Your task to perform on an android device: Open Chrome and go to settings Image 0: 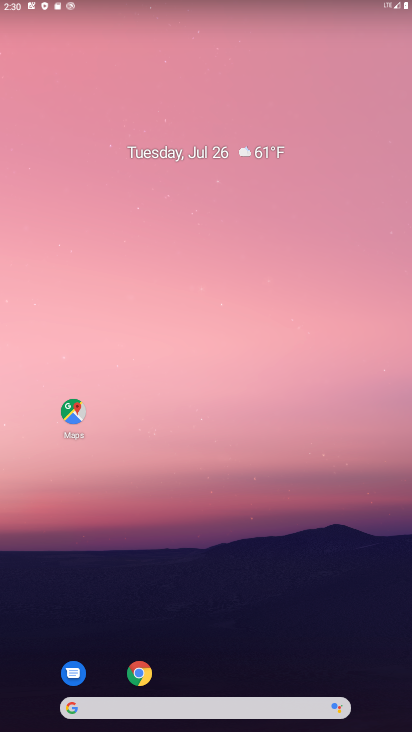
Step 0: drag from (180, 625) to (254, 27)
Your task to perform on an android device: Open Chrome and go to settings Image 1: 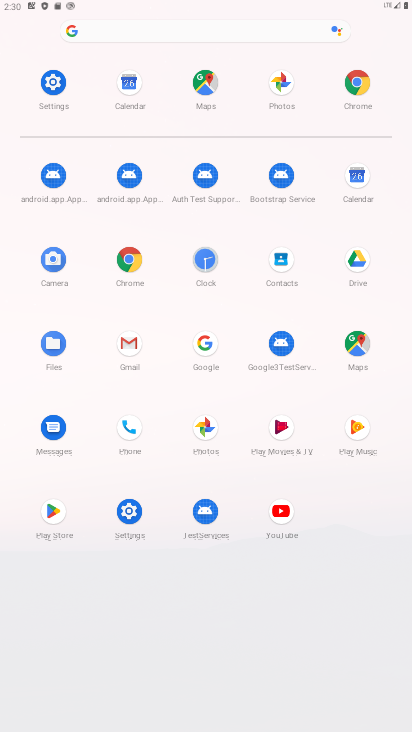
Step 1: click (117, 515)
Your task to perform on an android device: Open Chrome and go to settings Image 2: 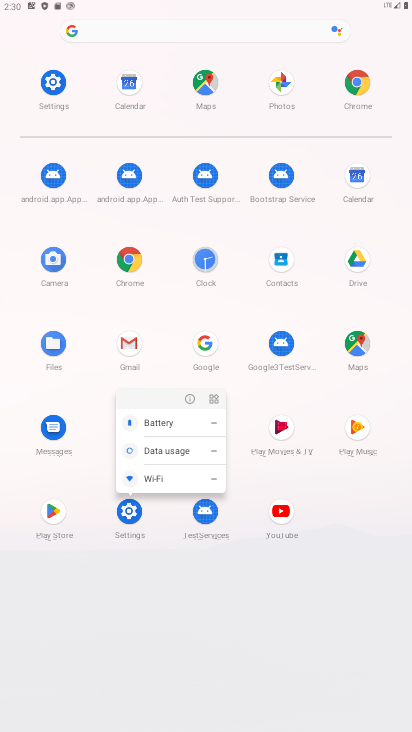
Step 2: click (187, 394)
Your task to perform on an android device: Open Chrome and go to settings Image 3: 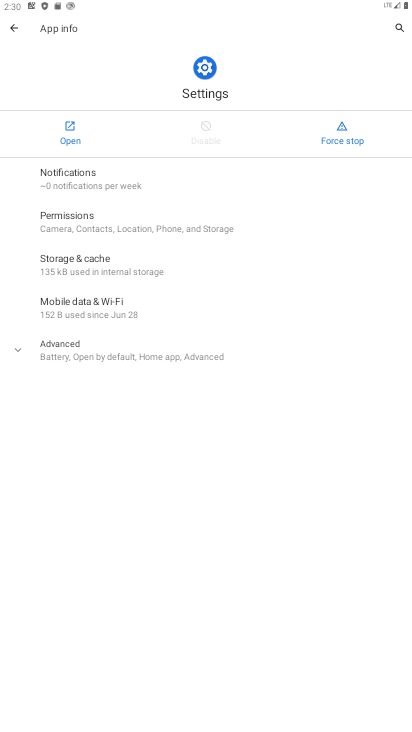
Step 3: click (75, 128)
Your task to perform on an android device: Open Chrome and go to settings Image 4: 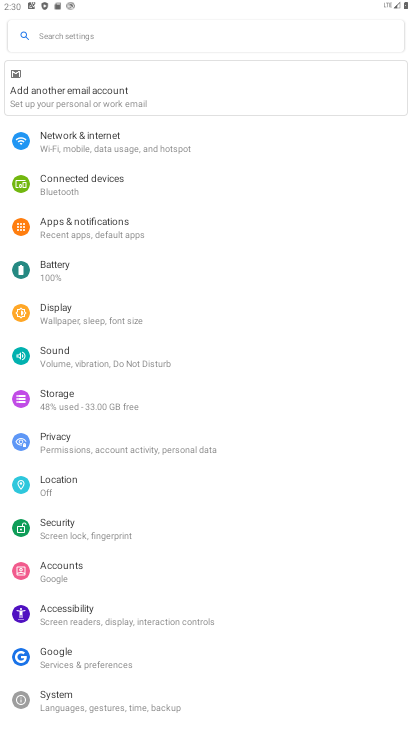
Step 4: press home button
Your task to perform on an android device: Open Chrome and go to settings Image 5: 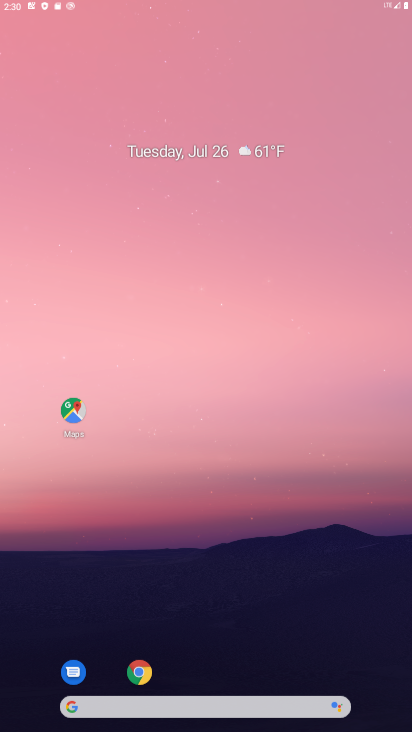
Step 5: drag from (157, 619) to (200, 134)
Your task to perform on an android device: Open Chrome and go to settings Image 6: 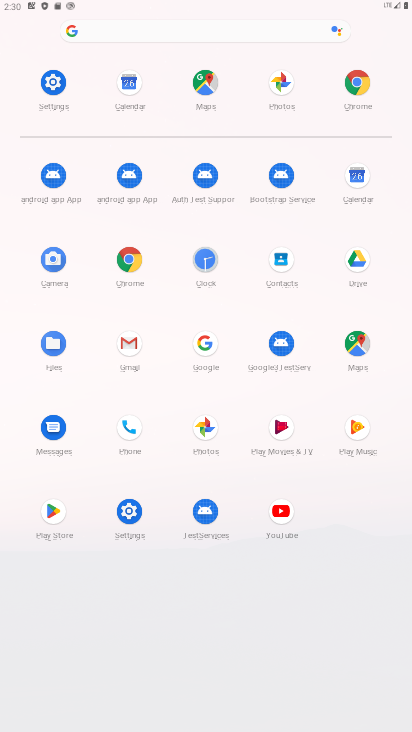
Step 6: click (127, 264)
Your task to perform on an android device: Open Chrome and go to settings Image 7: 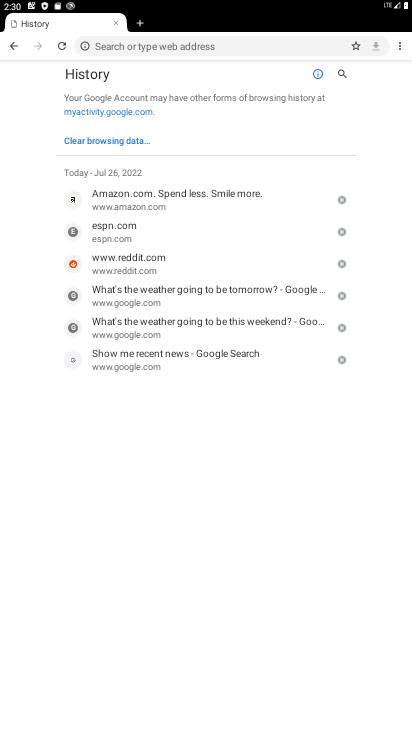
Step 7: task complete